Your task to perform on an android device: open app "PUBG MOBILE" (install if not already installed) Image 0: 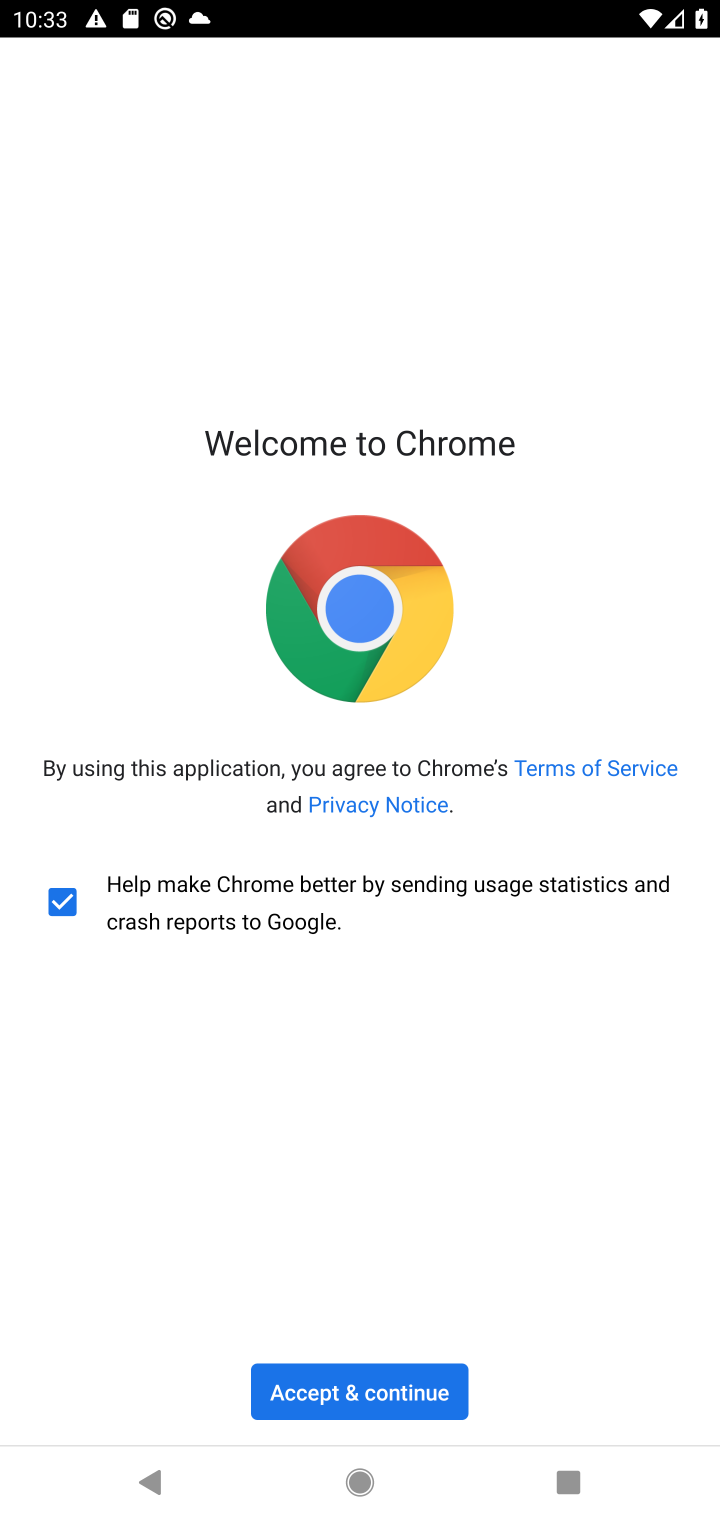
Step 0: click (352, 1412)
Your task to perform on an android device: open app "PUBG MOBILE" (install if not already installed) Image 1: 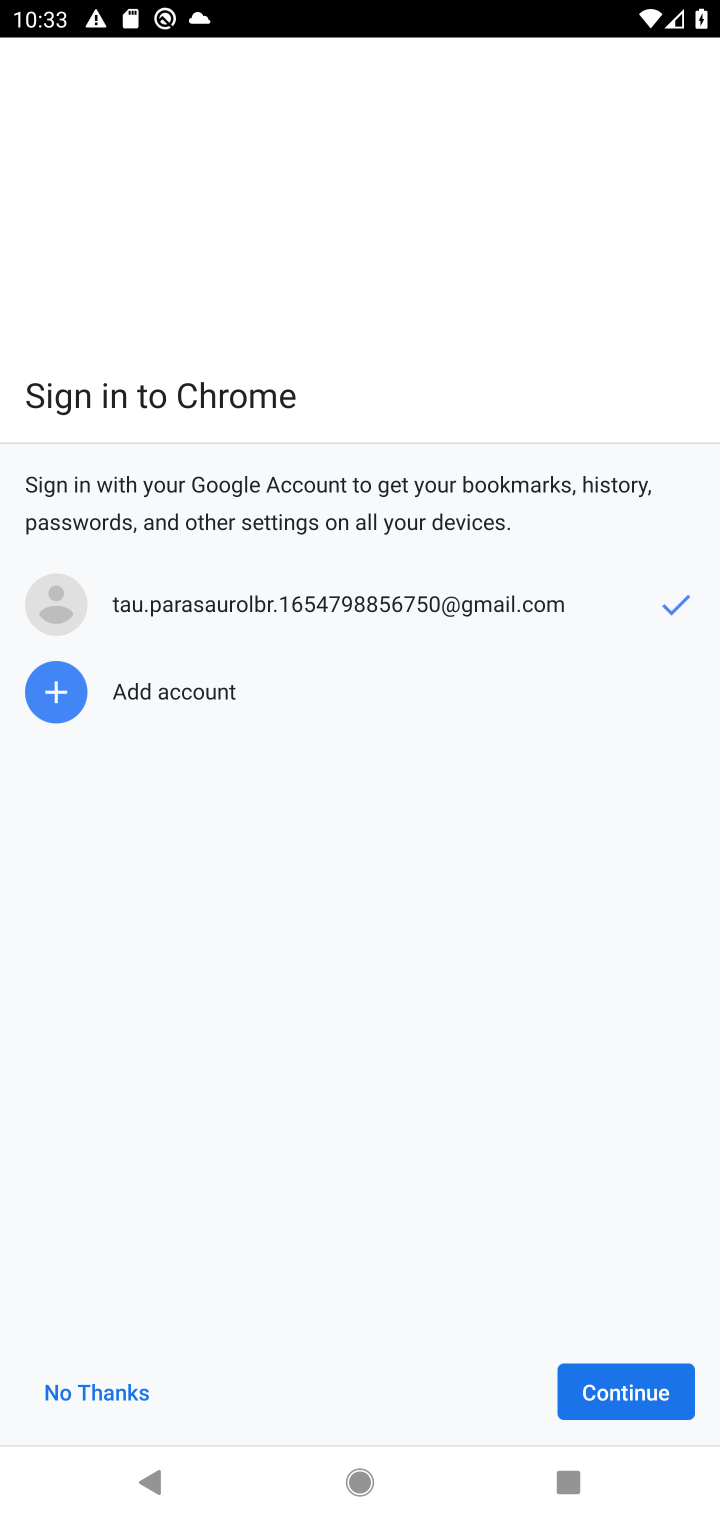
Step 1: press home button
Your task to perform on an android device: open app "PUBG MOBILE" (install if not already installed) Image 2: 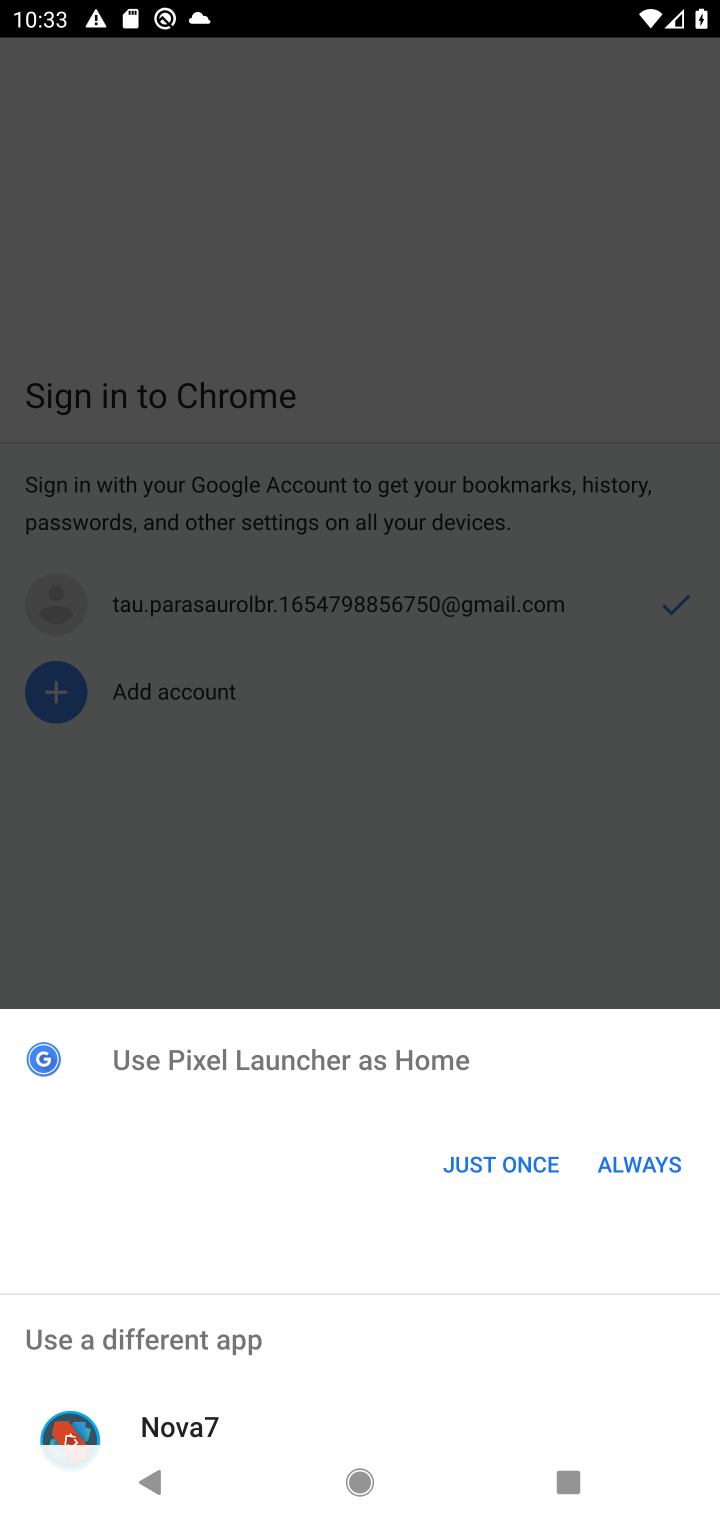
Step 2: click (500, 1146)
Your task to perform on an android device: open app "PUBG MOBILE" (install if not already installed) Image 3: 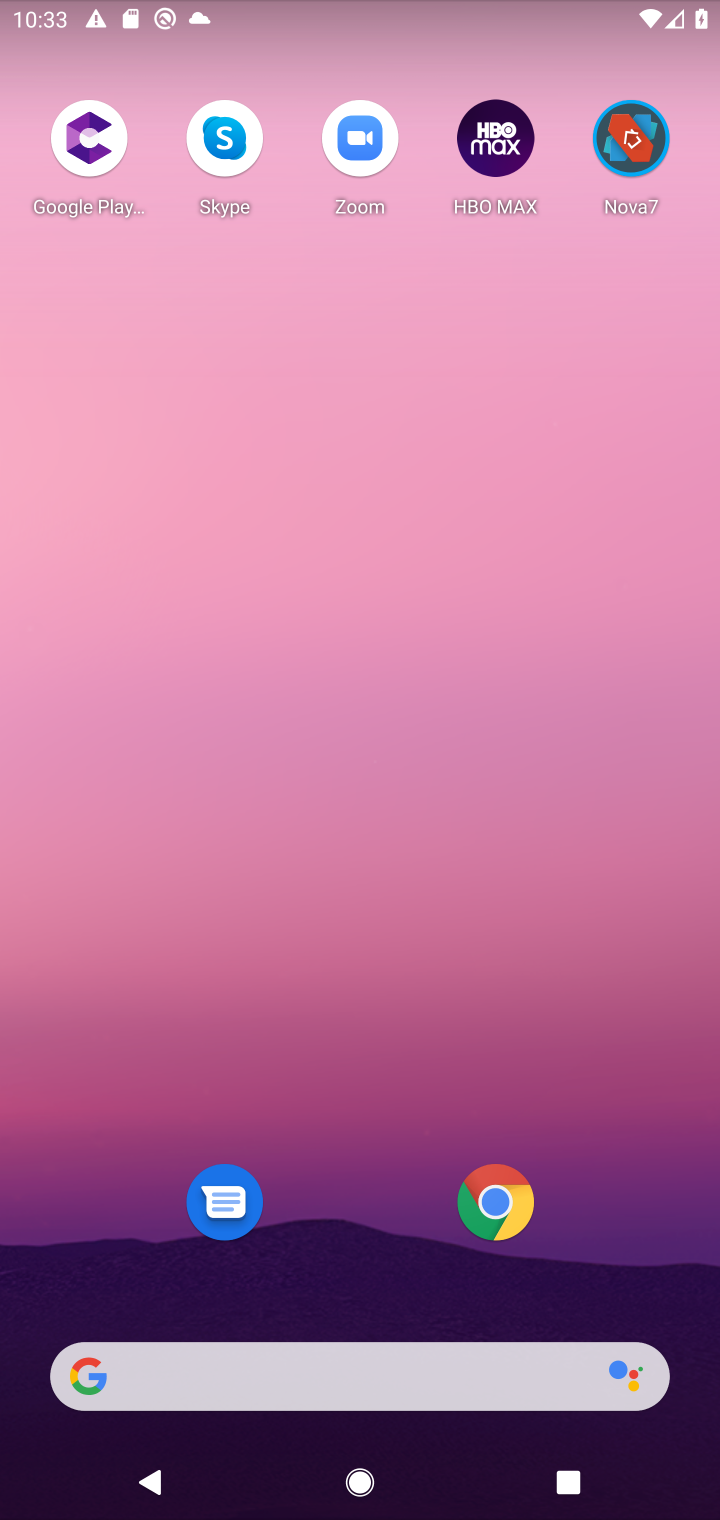
Step 3: click (362, 1490)
Your task to perform on an android device: open app "PUBG MOBILE" (install if not already installed) Image 4: 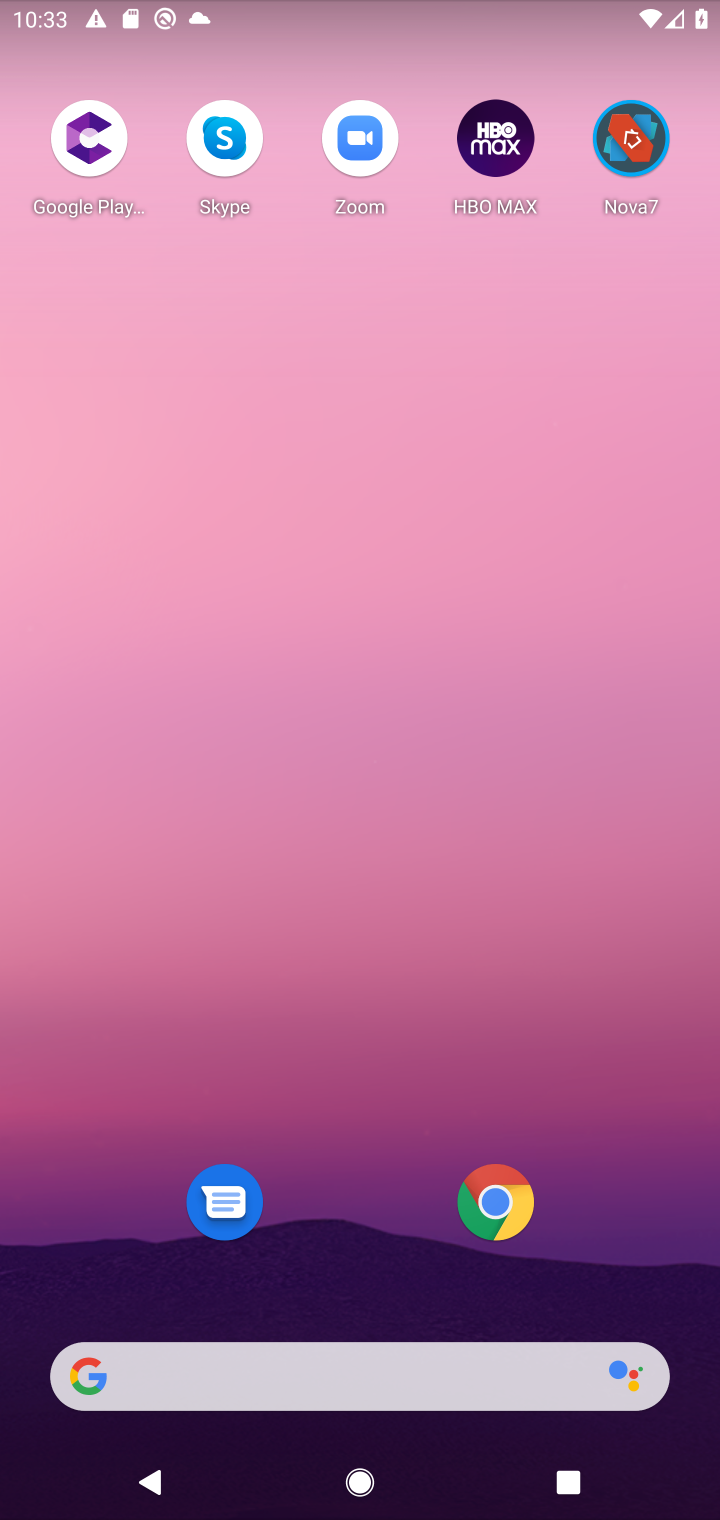
Step 4: click (362, 1490)
Your task to perform on an android device: open app "PUBG MOBILE" (install if not already installed) Image 5: 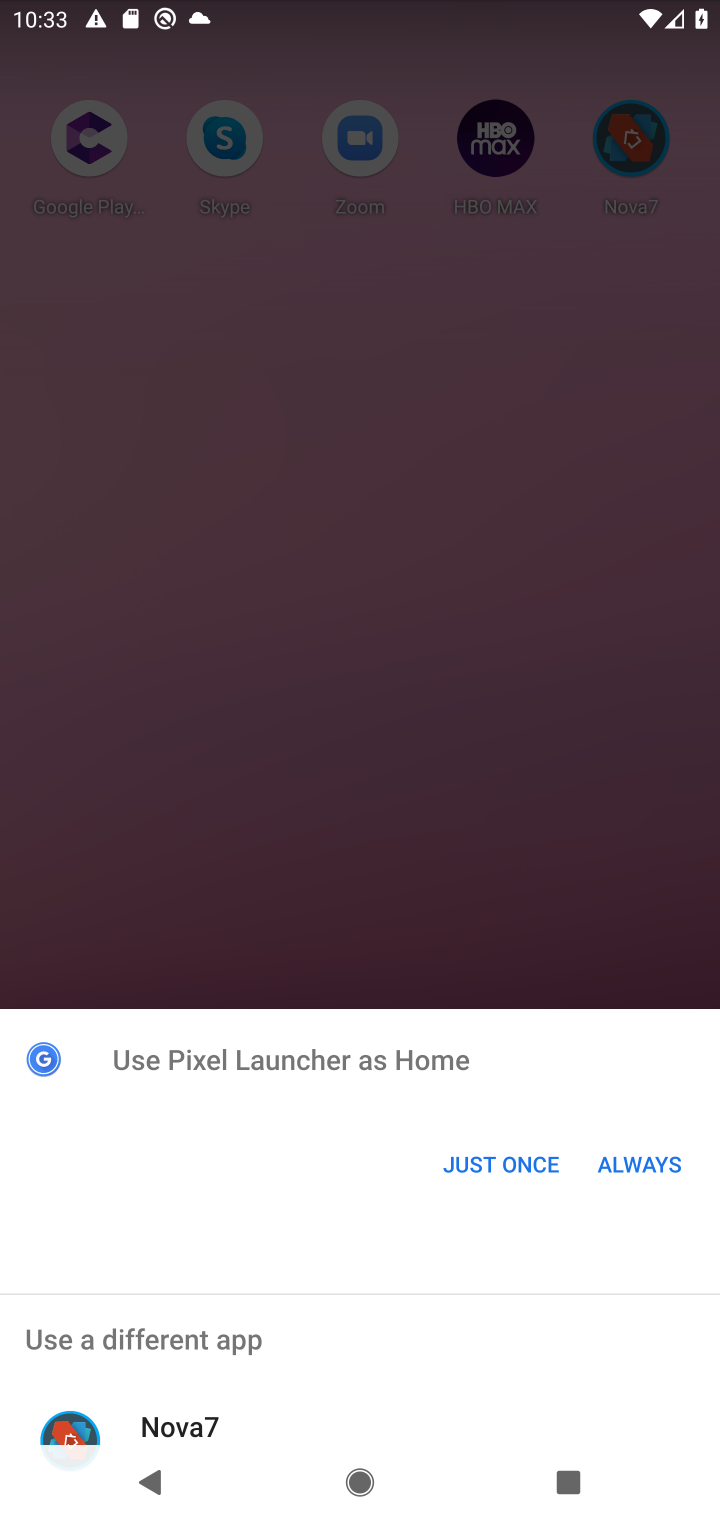
Step 5: click (519, 1173)
Your task to perform on an android device: open app "PUBG MOBILE" (install if not already installed) Image 6: 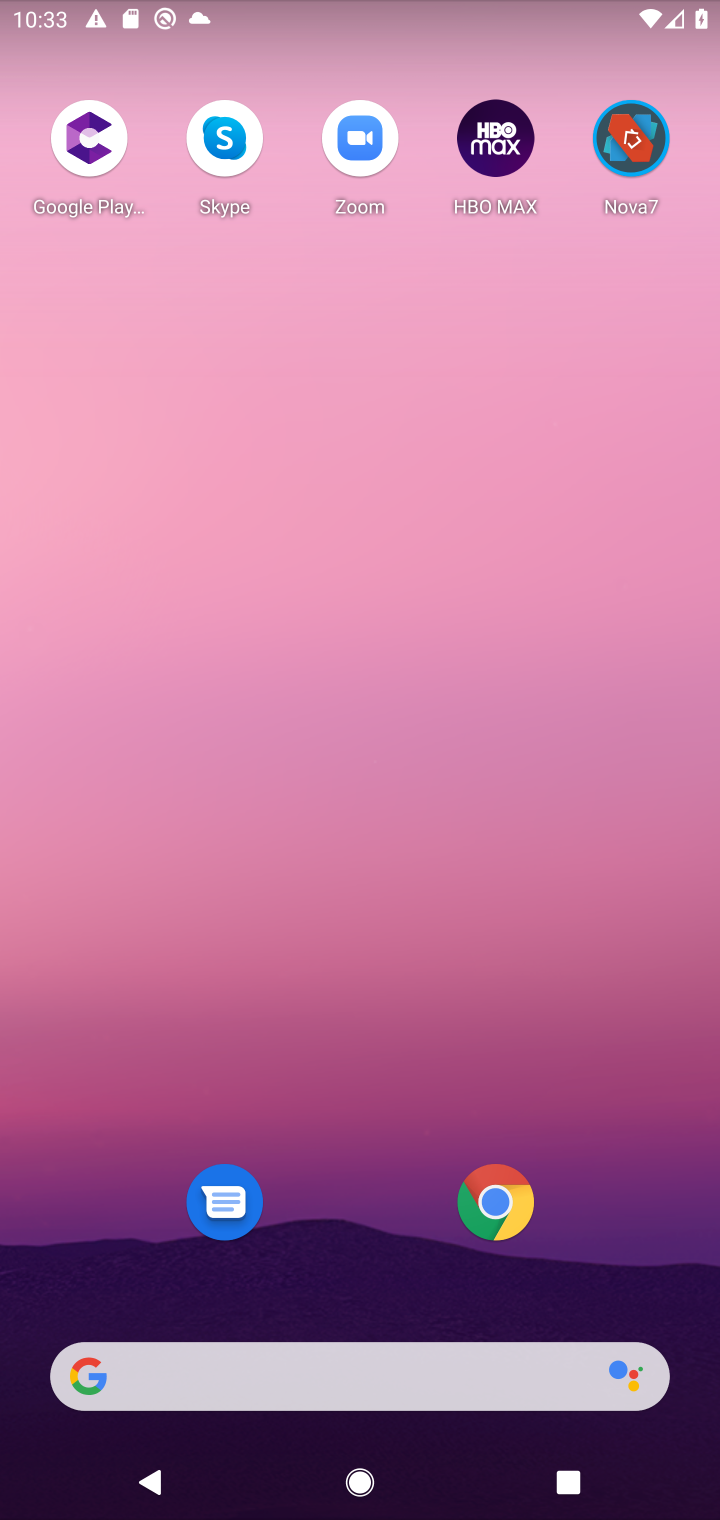
Step 6: drag from (338, 1323) to (283, 408)
Your task to perform on an android device: open app "PUBG MOBILE" (install if not already installed) Image 7: 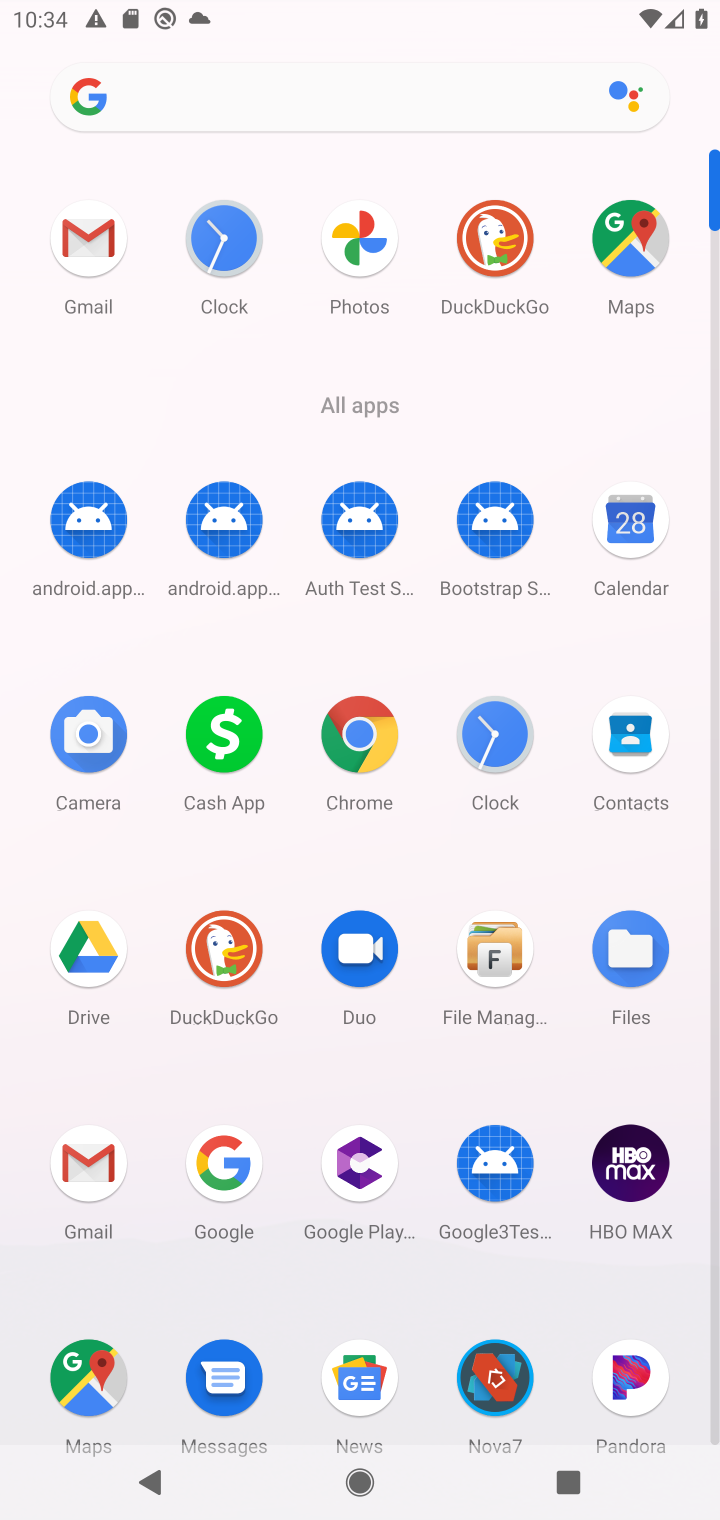
Step 7: click (330, 95)
Your task to perform on an android device: open app "PUBG MOBILE" (install if not already installed) Image 8: 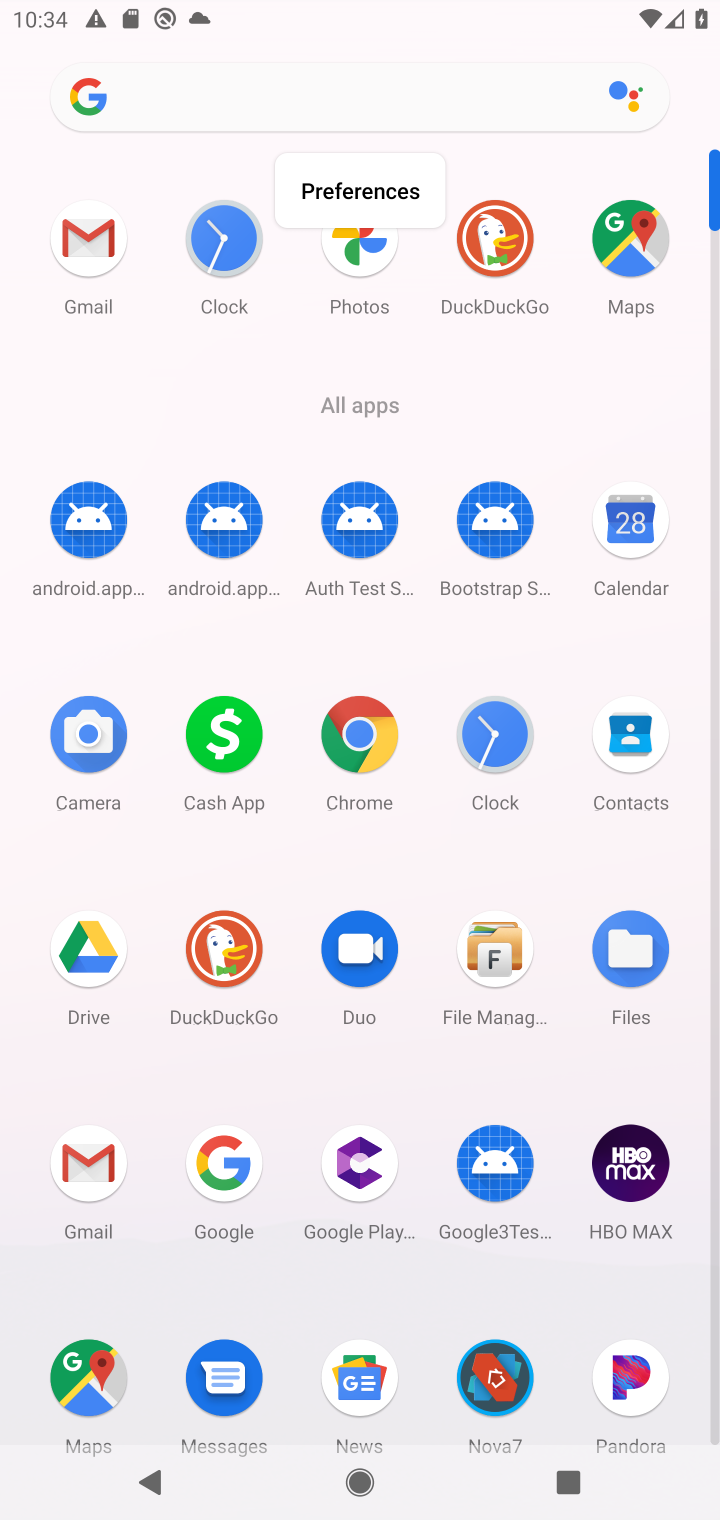
Step 8: type "pubg mobile"
Your task to perform on an android device: open app "PUBG MOBILE" (install if not already installed) Image 9: 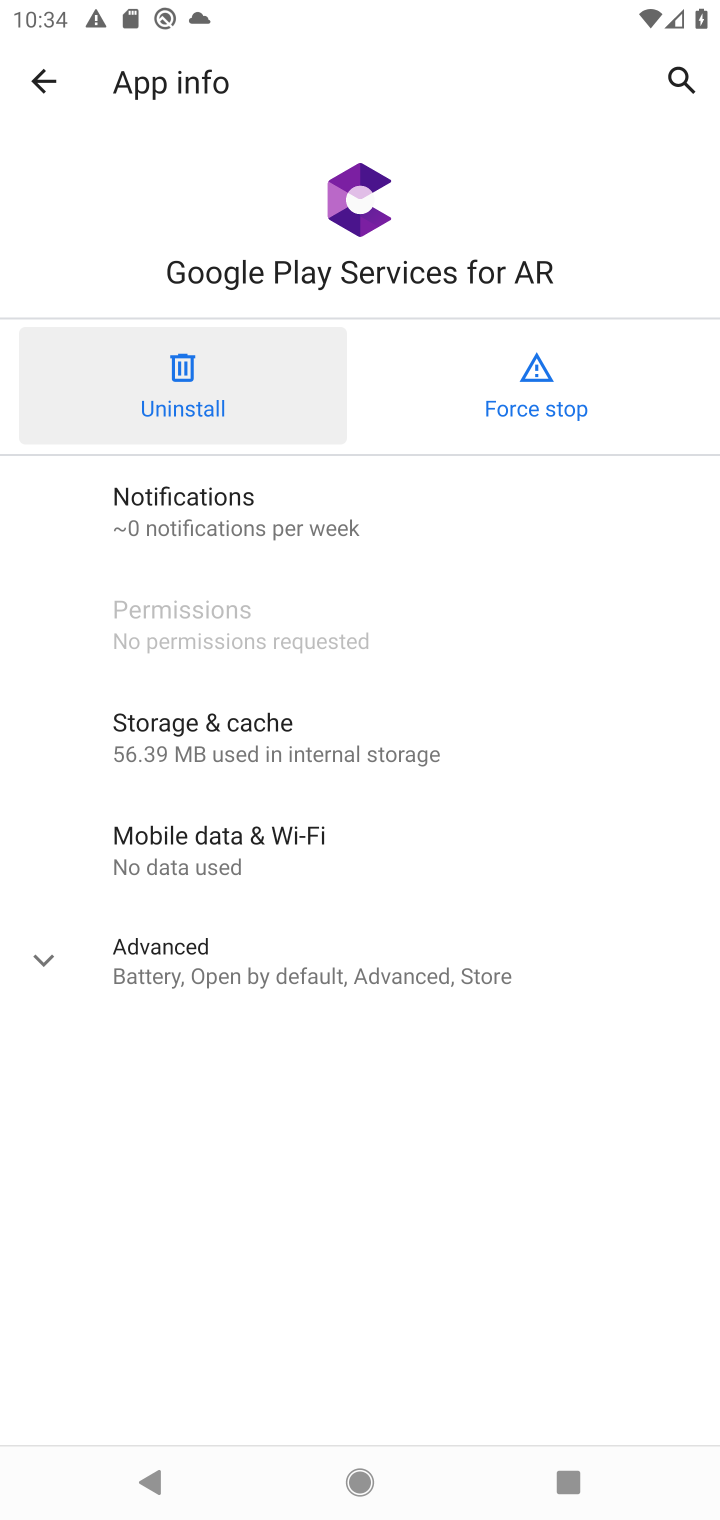
Step 9: click (50, 112)
Your task to perform on an android device: open app "PUBG MOBILE" (install if not already installed) Image 10: 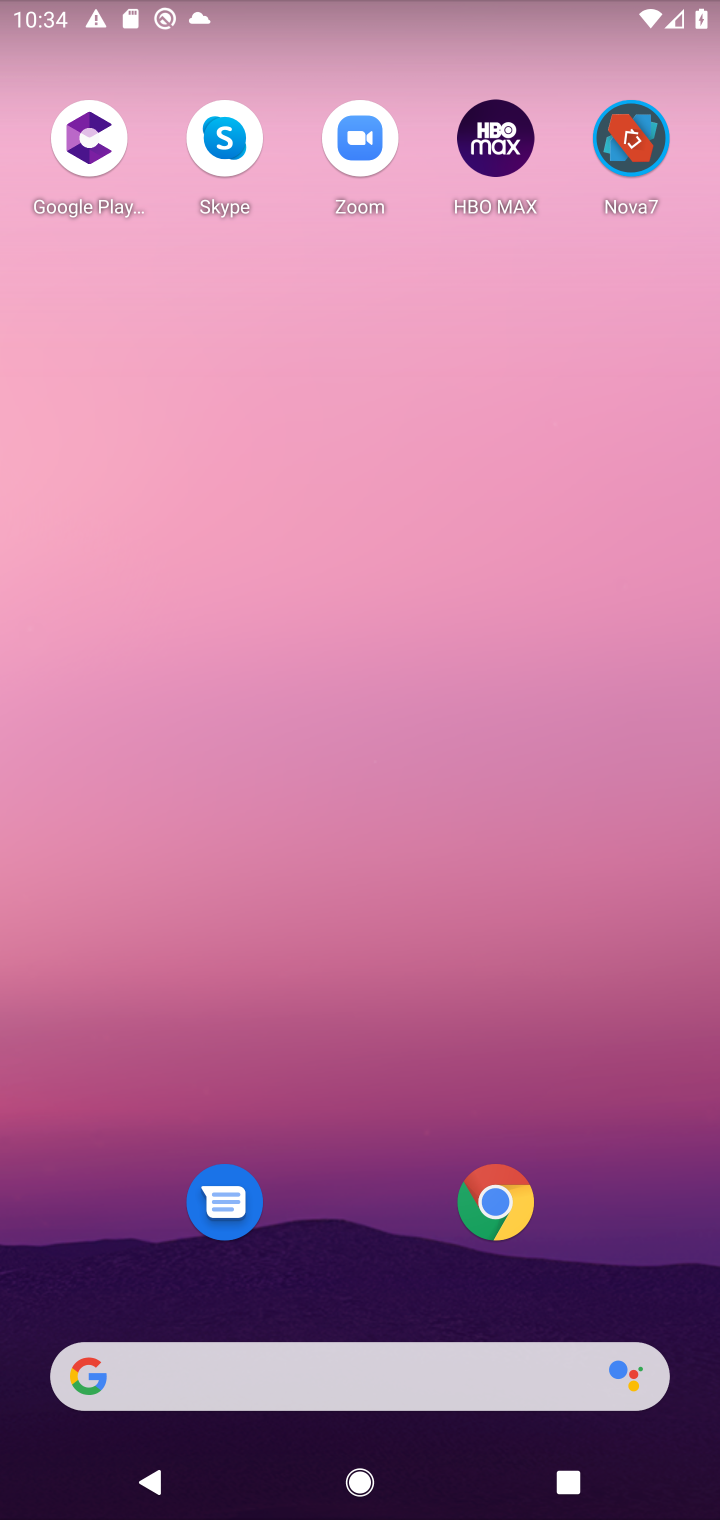
Step 10: click (374, 1354)
Your task to perform on an android device: open app "PUBG MOBILE" (install if not already installed) Image 11: 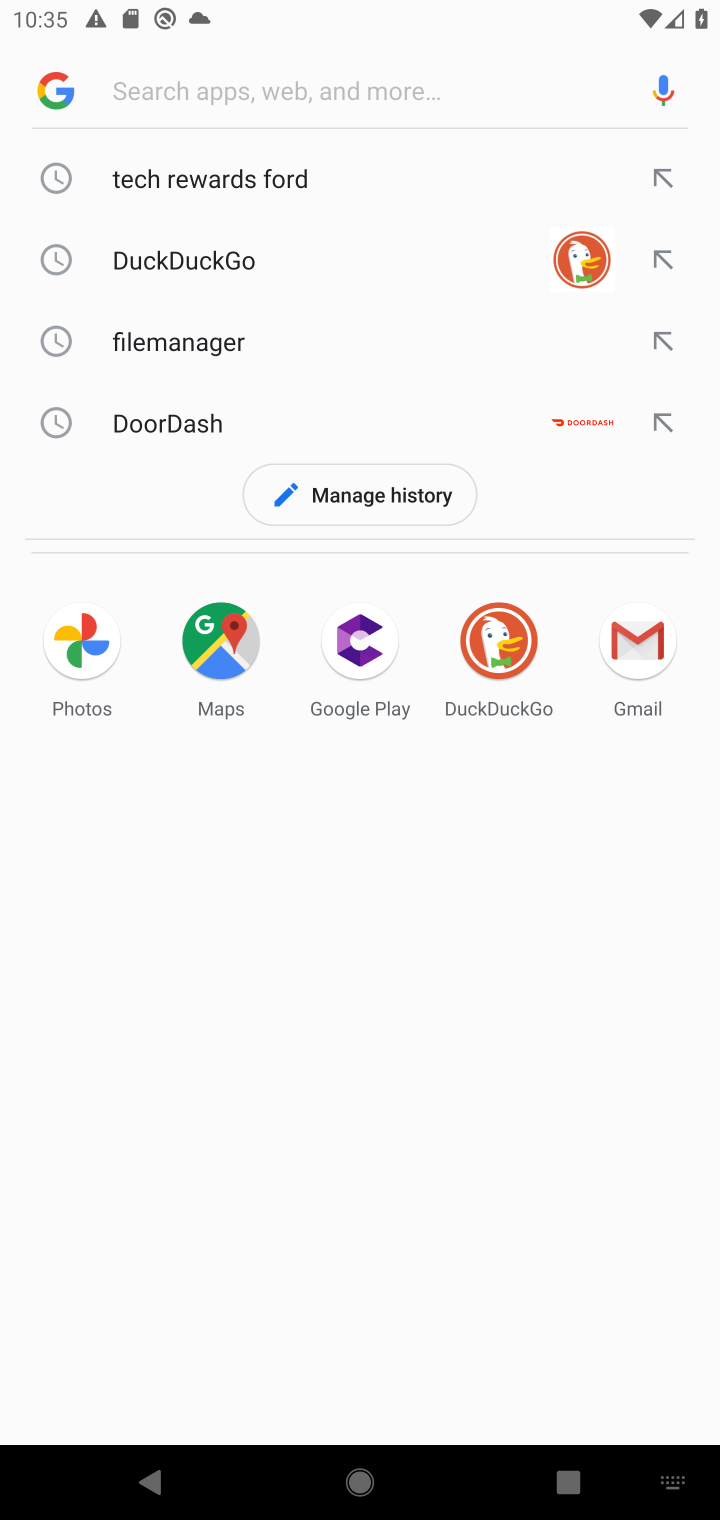
Step 11: type "pubg mobile"
Your task to perform on an android device: open app "PUBG MOBILE" (install if not already installed) Image 12: 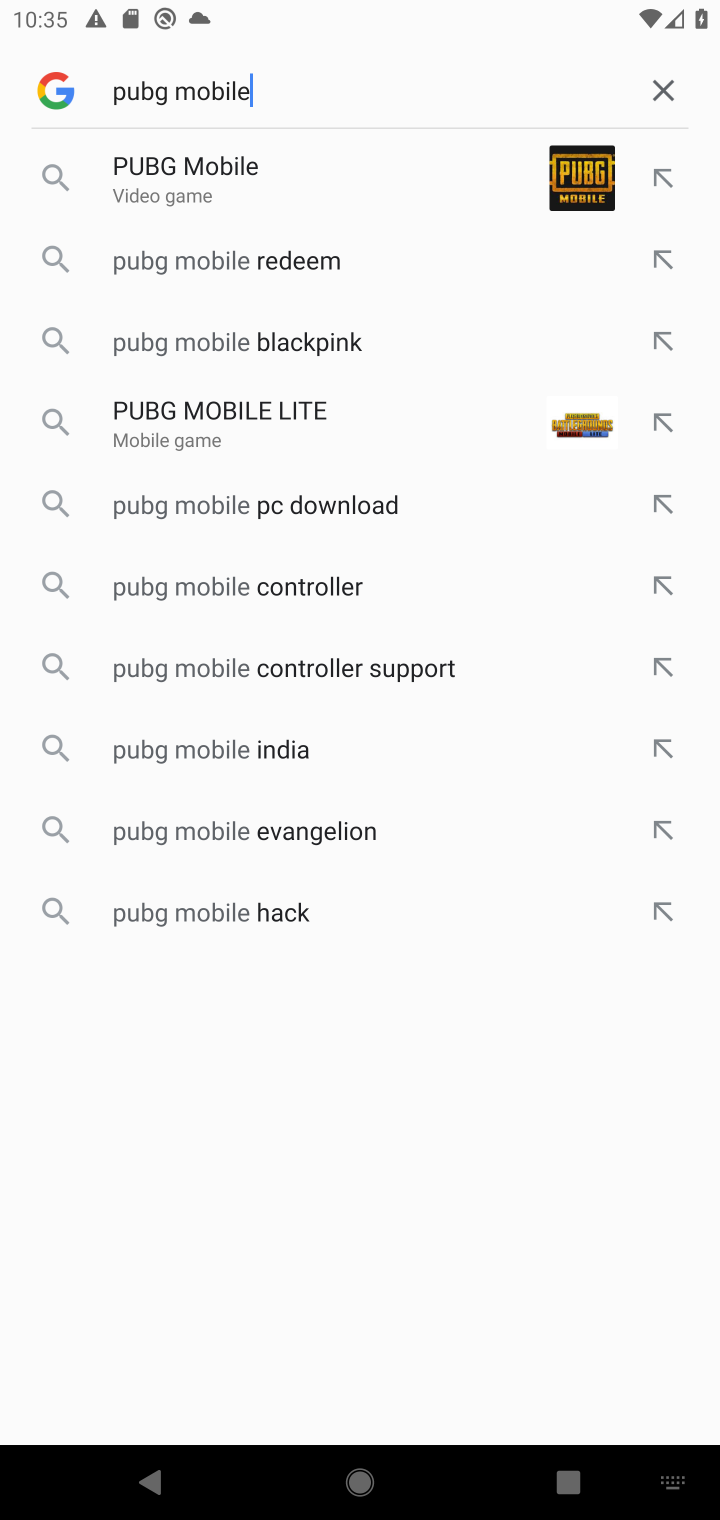
Step 12: click (314, 210)
Your task to perform on an android device: open app "PUBG MOBILE" (install if not already installed) Image 13: 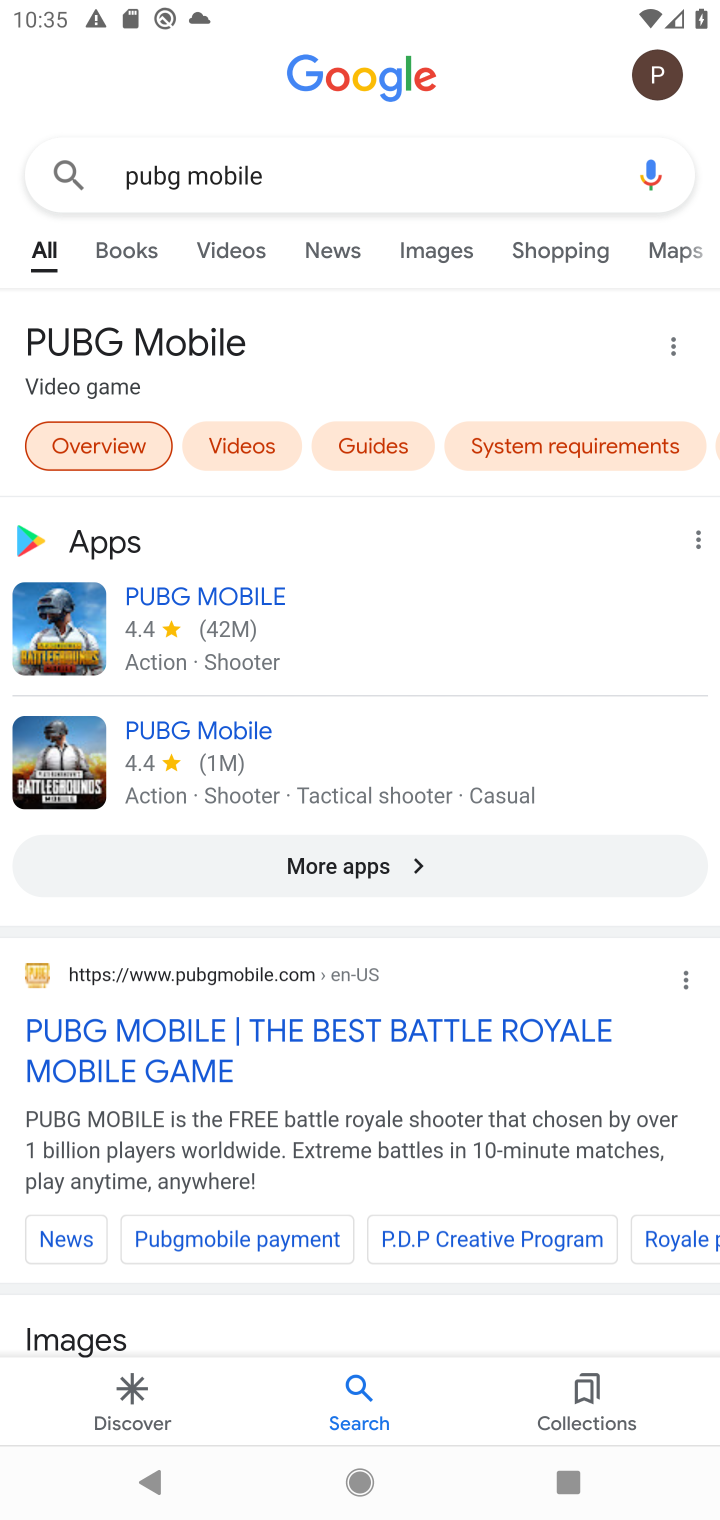
Step 13: click (283, 678)
Your task to perform on an android device: open app "PUBG MOBILE" (install if not already installed) Image 14: 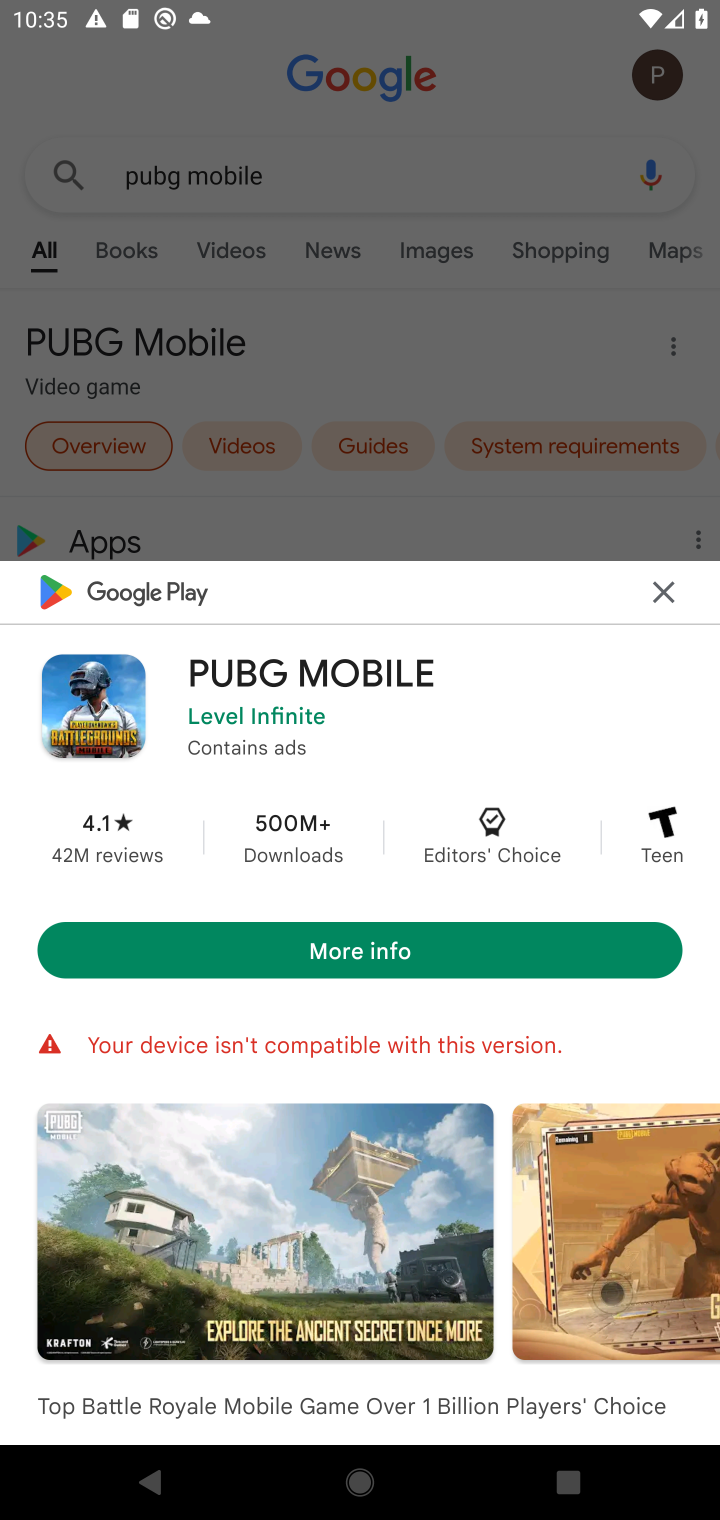
Step 14: task complete